Your task to perform on an android device: Is it going to rain today? Image 0: 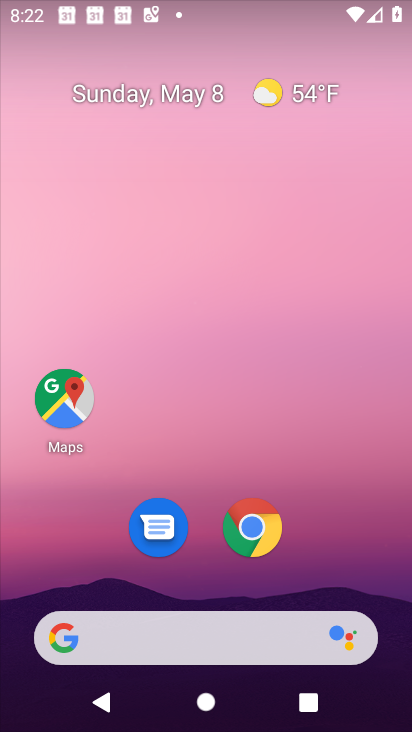
Step 0: drag from (307, 537) to (282, 152)
Your task to perform on an android device: Is it going to rain today? Image 1: 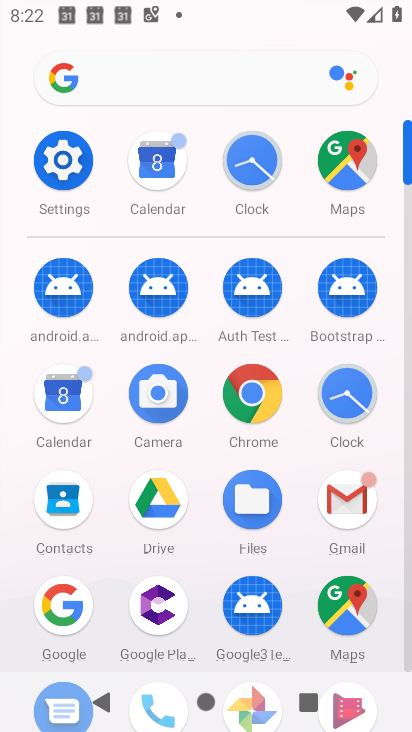
Step 1: click (129, 85)
Your task to perform on an android device: Is it going to rain today? Image 2: 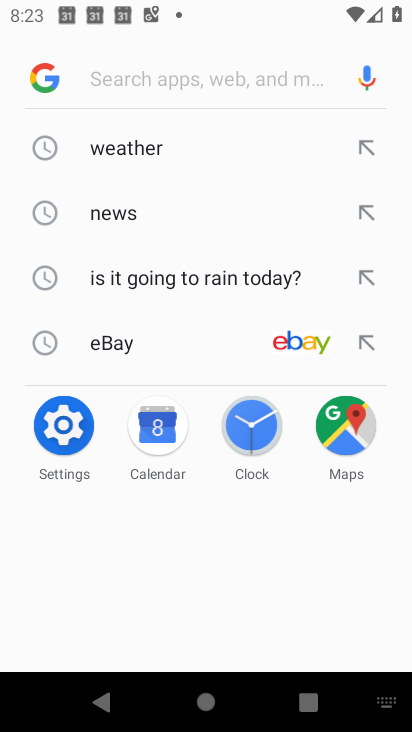
Step 2: type "is it going to rain today"
Your task to perform on an android device: Is it going to rain today? Image 3: 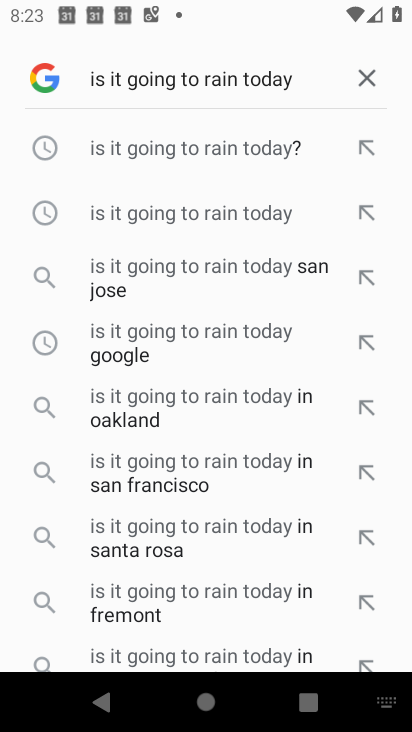
Step 3: click (206, 151)
Your task to perform on an android device: Is it going to rain today? Image 4: 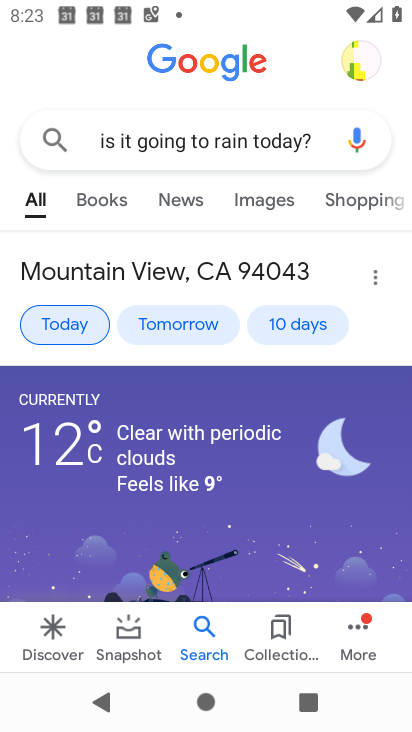
Step 4: task complete